Your task to perform on an android device: Open Youtube and go to the subscriptions tab Image 0: 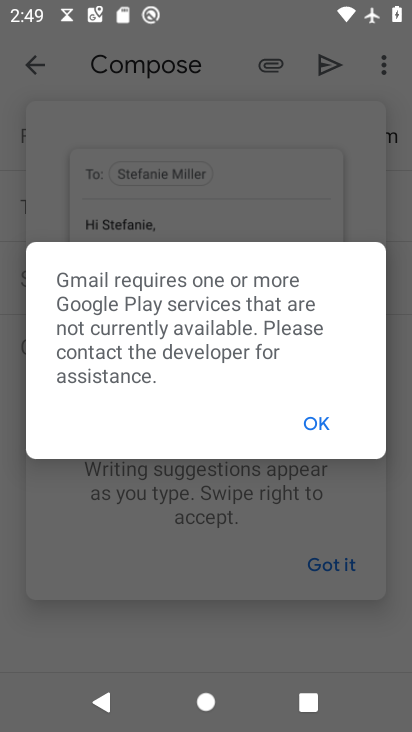
Step 0: press home button
Your task to perform on an android device: Open Youtube and go to the subscriptions tab Image 1: 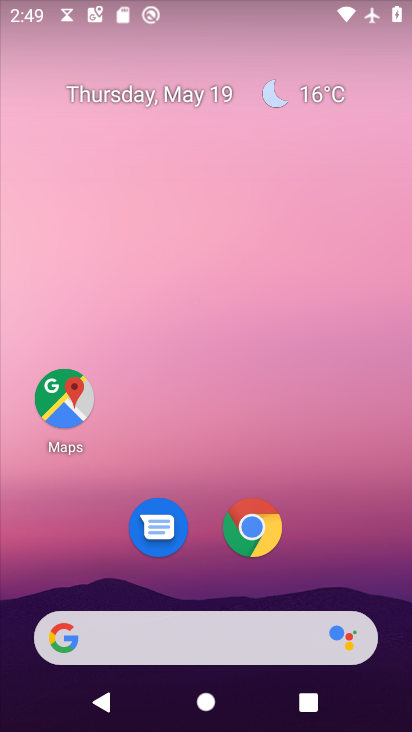
Step 1: drag from (320, 492) to (234, 35)
Your task to perform on an android device: Open Youtube and go to the subscriptions tab Image 2: 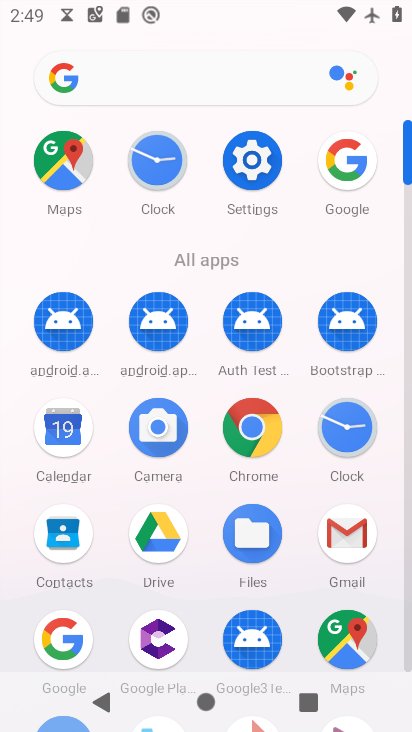
Step 2: drag from (285, 585) to (222, 159)
Your task to perform on an android device: Open Youtube and go to the subscriptions tab Image 3: 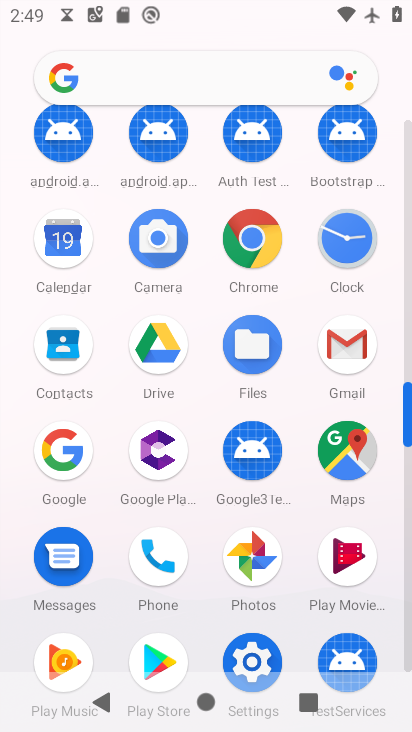
Step 3: drag from (285, 607) to (257, 250)
Your task to perform on an android device: Open Youtube and go to the subscriptions tab Image 4: 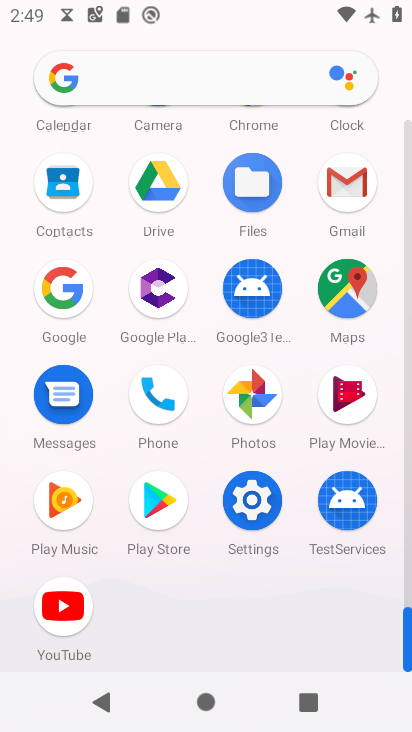
Step 4: click (60, 618)
Your task to perform on an android device: Open Youtube and go to the subscriptions tab Image 5: 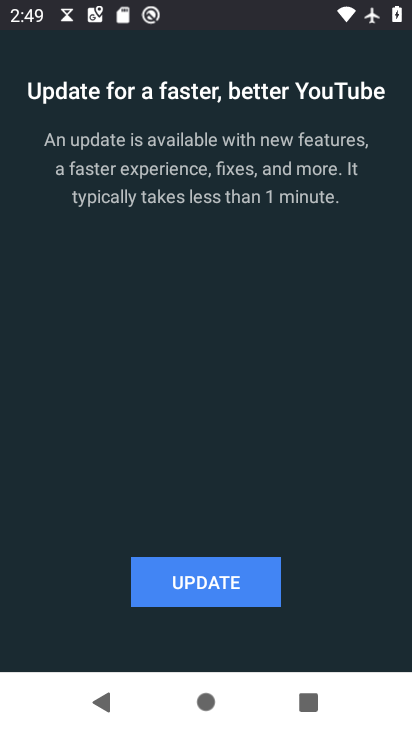
Step 5: click (225, 581)
Your task to perform on an android device: Open Youtube and go to the subscriptions tab Image 6: 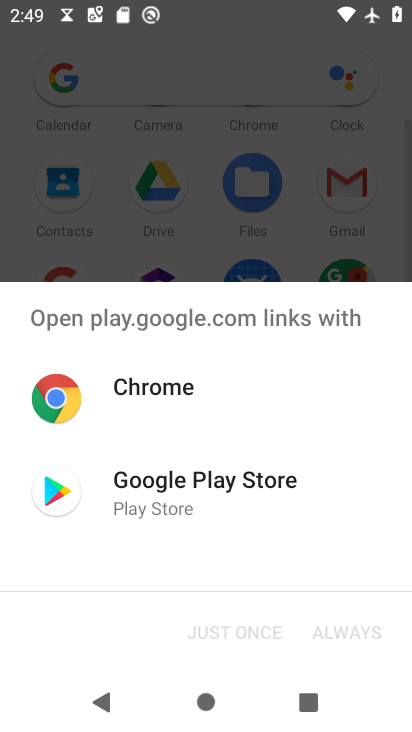
Step 6: click (174, 476)
Your task to perform on an android device: Open Youtube and go to the subscriptions tab Image 7: 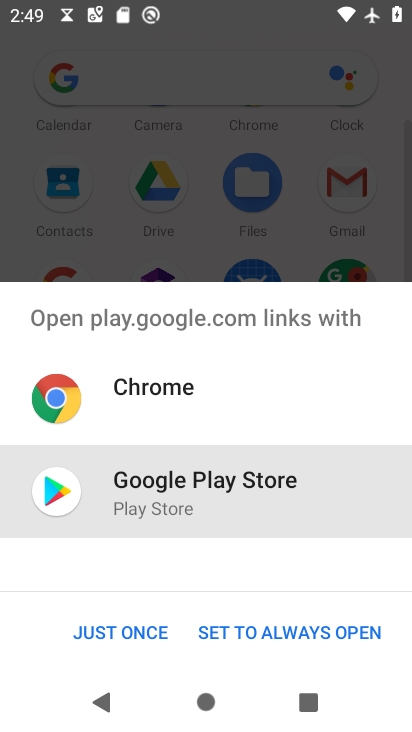
Step 7: click (139, 626)
Your task to perform on an android device: Open Youtube and go to the subscriptions tab Image 8: 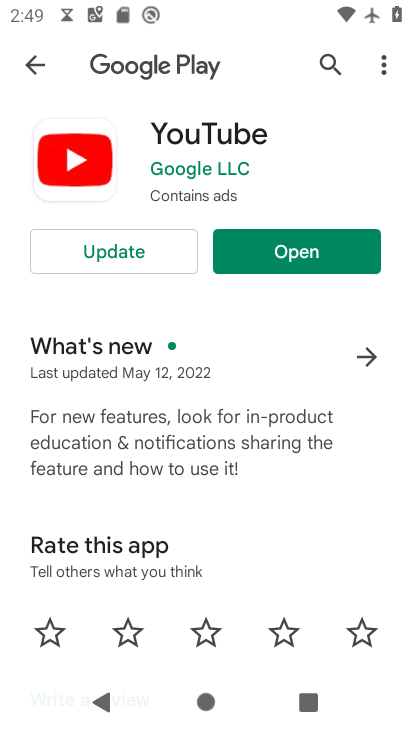
Step 8: click (114, 246)
Your task to perform on an android device: Open Youtube and go to the subscriptions tab Image 9: 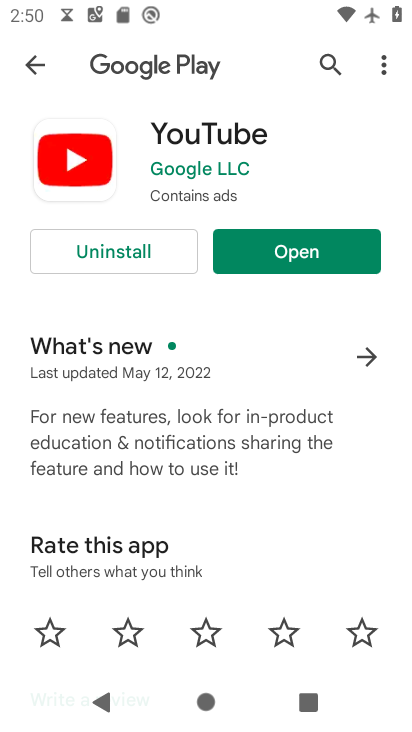
Step 9: click (268, 237)
Your task to perform on an android device: Open Youtube and go to the subscriptions tab Image 10: 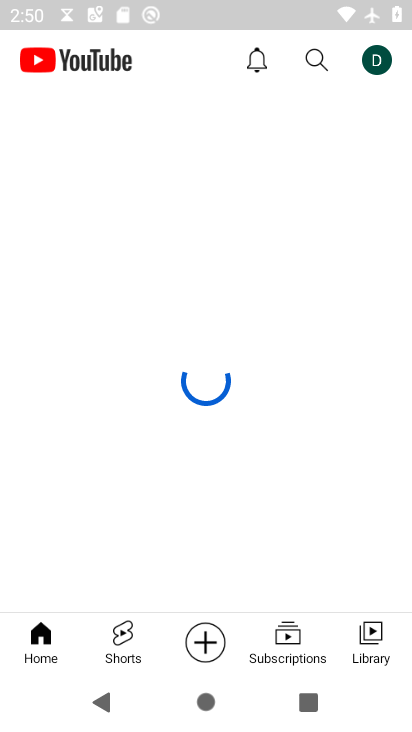
Step 10: click (275, 637)
Your task to perform on an android device: Open Youtube and go to the subscriptions tab Image 11: 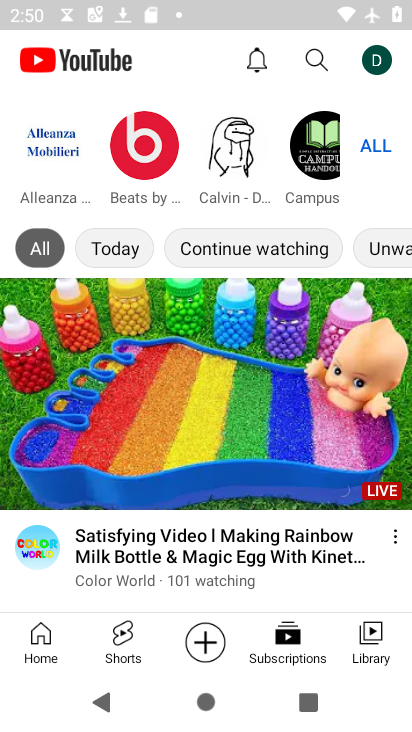
Step 11: task complete